Your task to perform on an android device: turn on the 24-hour format for clock Image 0: 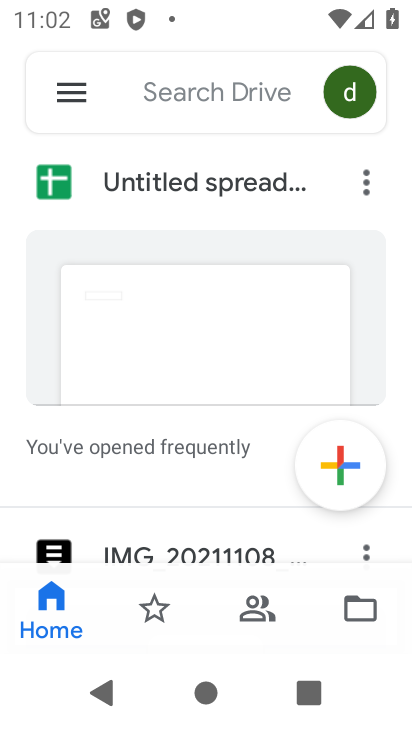
Step 0: press home button
Your task to perform on an android device: turn on the 24-hour format for clock Image 1: 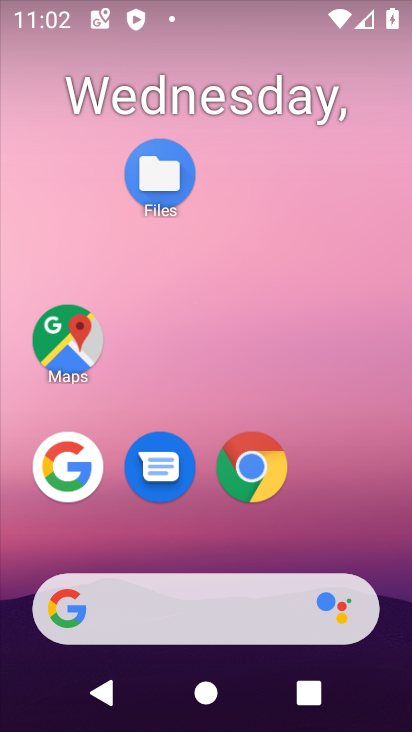
Step 1: drag from (206, 547) to (376, 10)
Your task to perform on an android device: turn on the 24-hour format for clock Image 2: 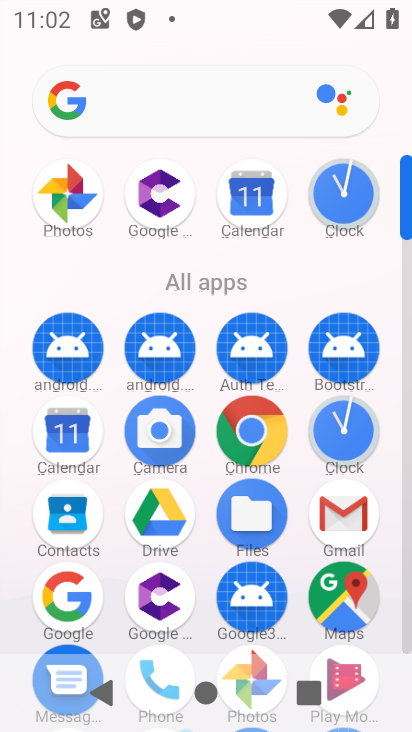
Step 2: click (347, 435)
Your task to perform on an android device: turn on the 24-hour format for clock Image 3: 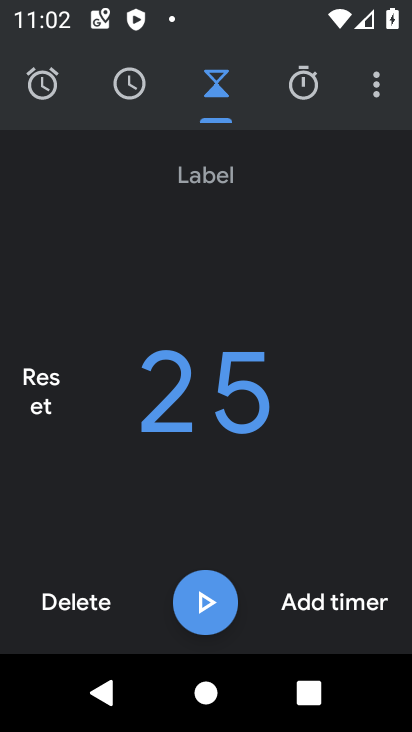
Step 3: click (373, 97)
Your task to perform on an android device: turn on the 24-hour format for clock Image 4: 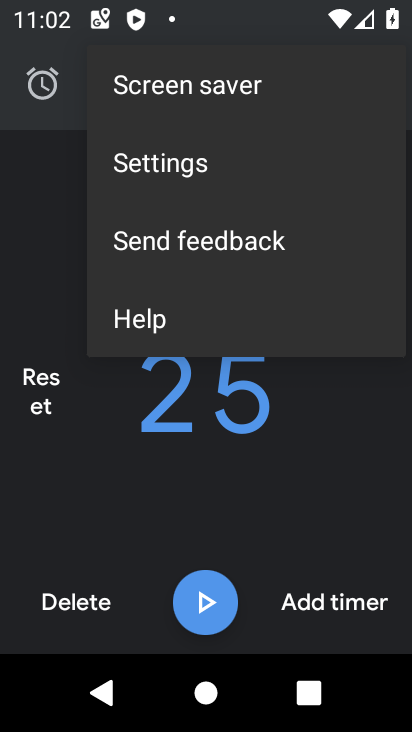
Step 4: click (181, 160)
Your task to perform on an android device: turn on the 24-hour format for clock Image 5: 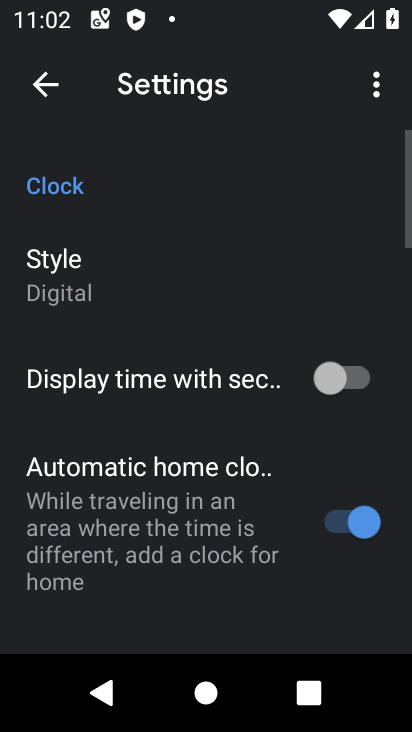
Step 5: drag from (150, 493) to (130, 163)
Your task to perform on an android device: turn on the 24-hour format for clock Image 6: 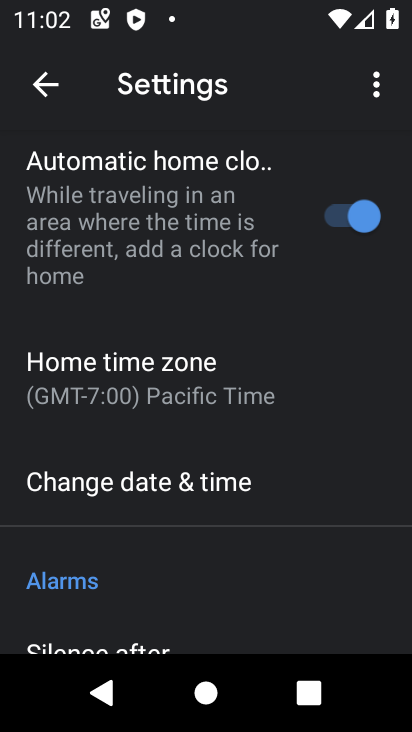
Step 6: click (137, 484)
Your task to perform on an android device: turn on the 24-hour format for clock Image 7: 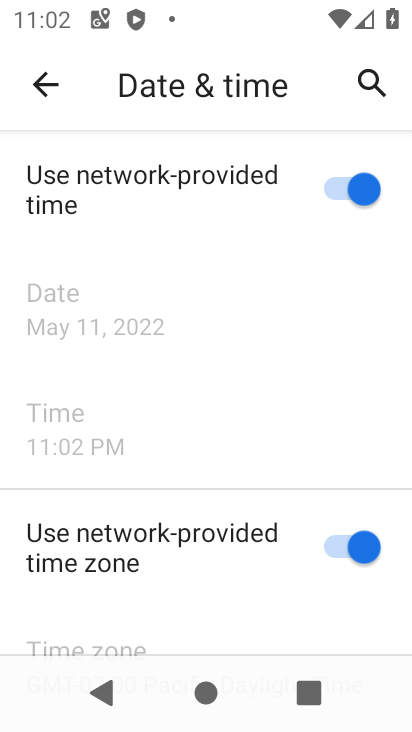
Step 7: drag from (180, 566) to (194, 171)
Your task to perform on an android device: turn on the 24-hour format for clock Image 8: 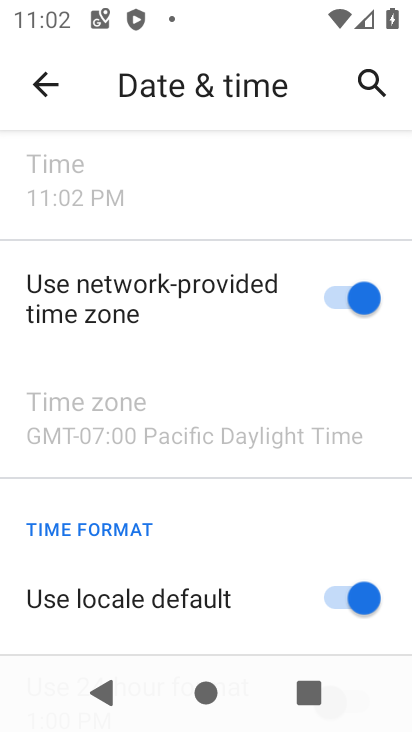
Step 8: drag from (256, 557) to (247, 230)
Your task to perform on an android device: turn on the 24-hour format for clock Image 9: 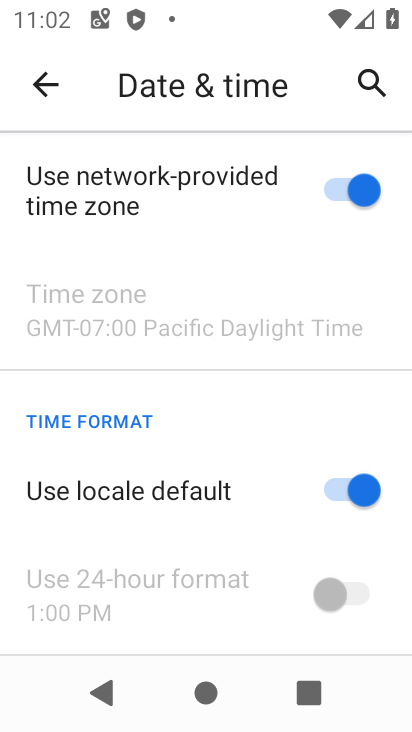
Step 9: click (346, 497)
Your task to perform on an android device: turn on the 24-hour format for clock Image 10: 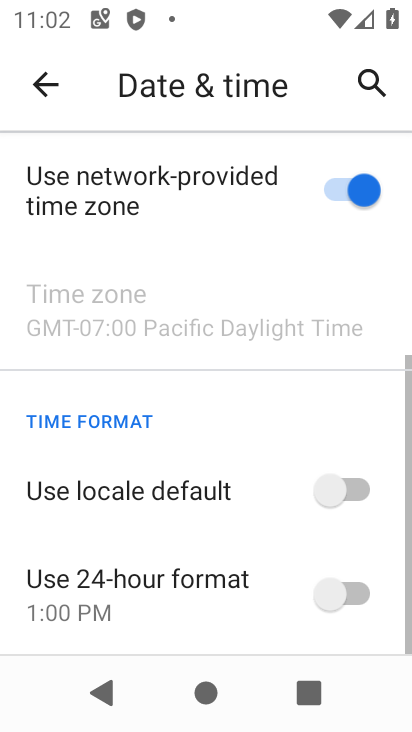
Step 10: click (351, 573)
Your task to perform on an android device: turn on the 24-hour format for clock Image 11: 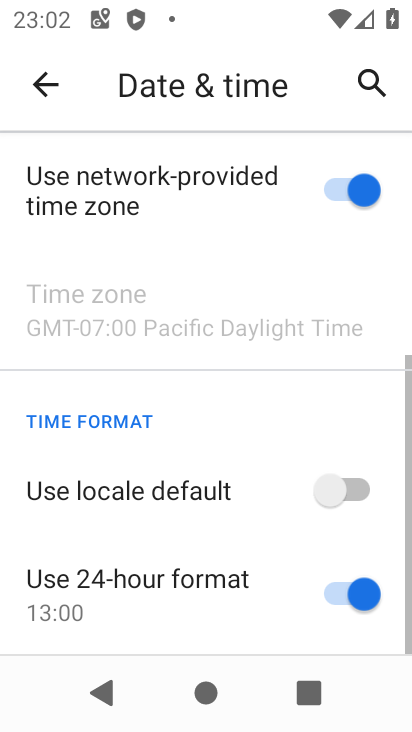
Step 11: task complete